Your task to perform on an android device: allow notifications from all sites in the chrome app Image 0: 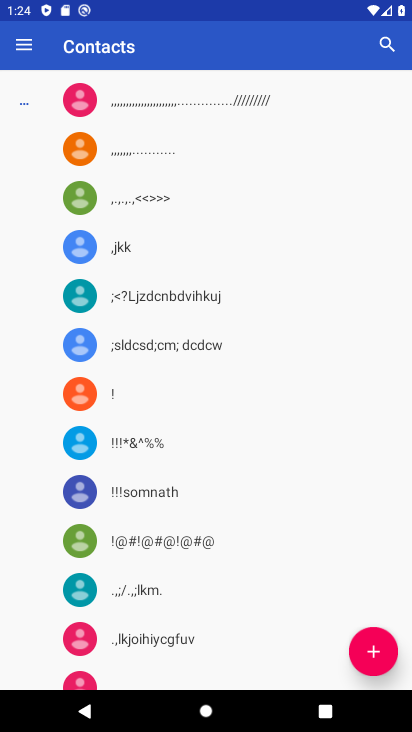
Step 0: press home button
Your task to perform on an android device: allow notifications from all sites in the chrome app Image 1: 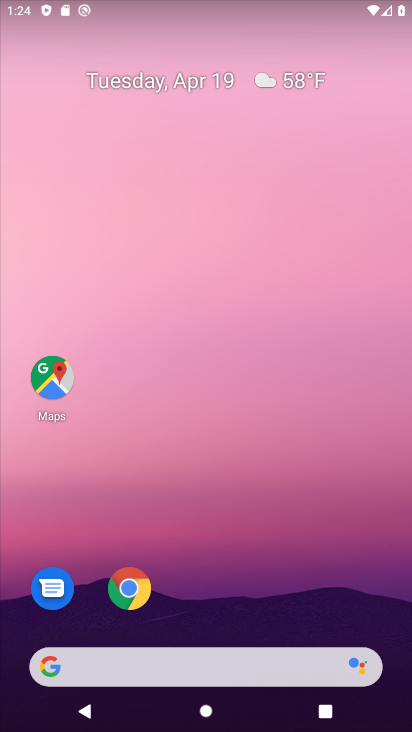
Step 1: click (134, 590)
Your task to perform on an android device: allow notifications from all sites in the chrome app Image 2: 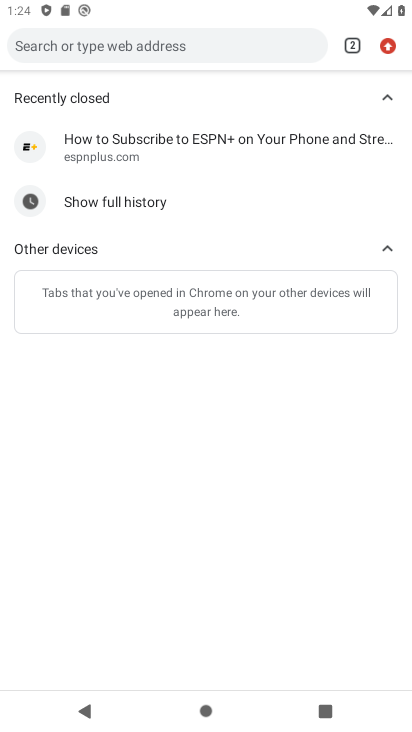
Step 2: click (384, 41)
Your task to perform on an android device: allow notifications from all sites in the chrome app Image 3: 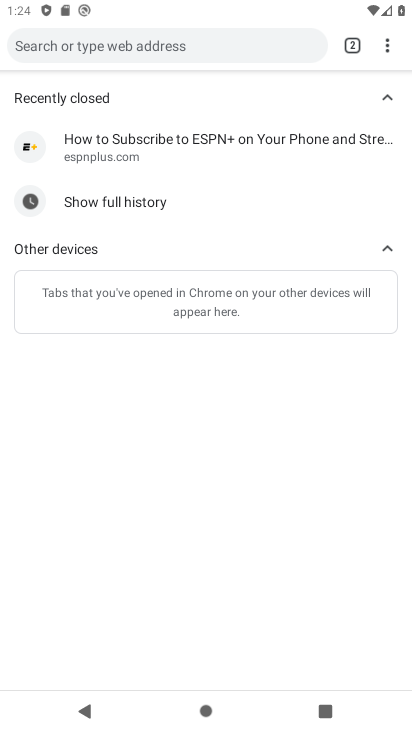
Step 3: click (384, 41)
Your task to perform on an android device: allow notifications from all sites in the chrome app Image 4: 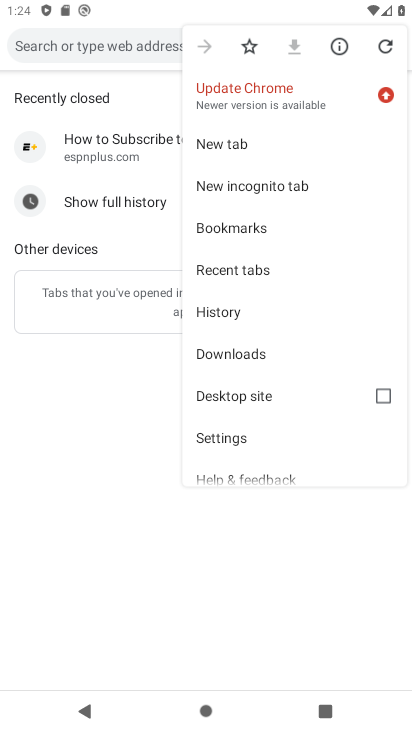
Step 4: click (230, 440)
Your task to perform on an android device: allow notifications from all sites in the chrome app Image 5: 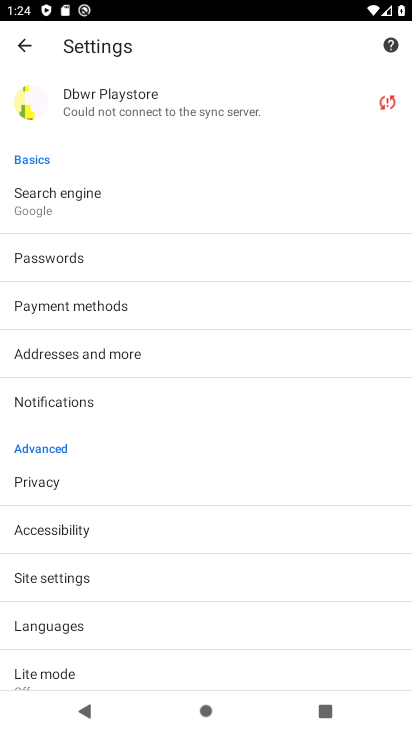
Step 5: click (146, 397)
Your task to perform on an android device: allow notifications from all sites in the chrome app Image 6: 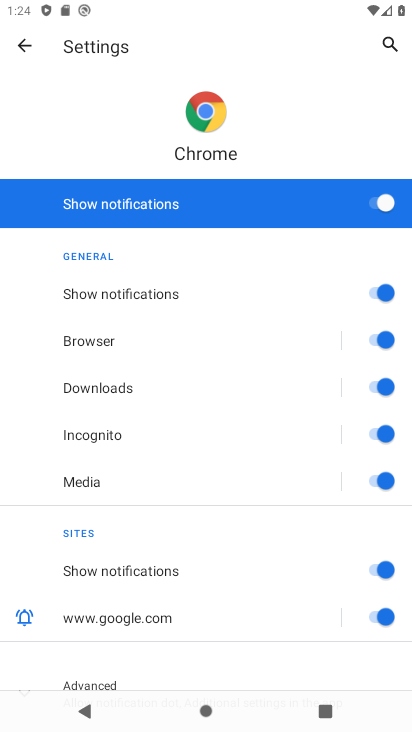
Step 6: task complete